Your task to perform on an android device: Open Yahoo.com Image 0: 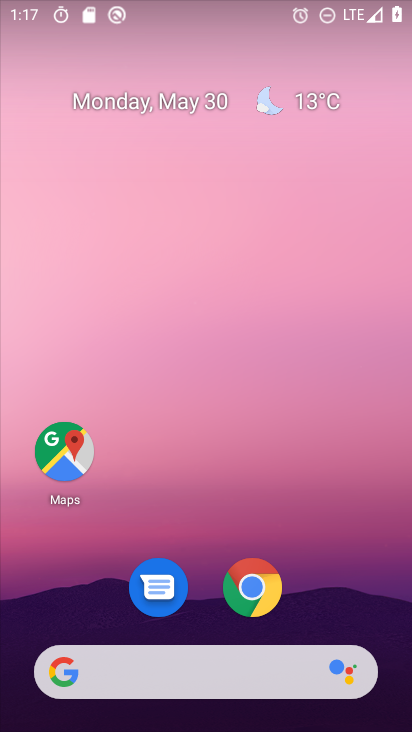
Step 0: click (257, 591)
Your task to perform on an android device: Open Yahoo.com Image 1: 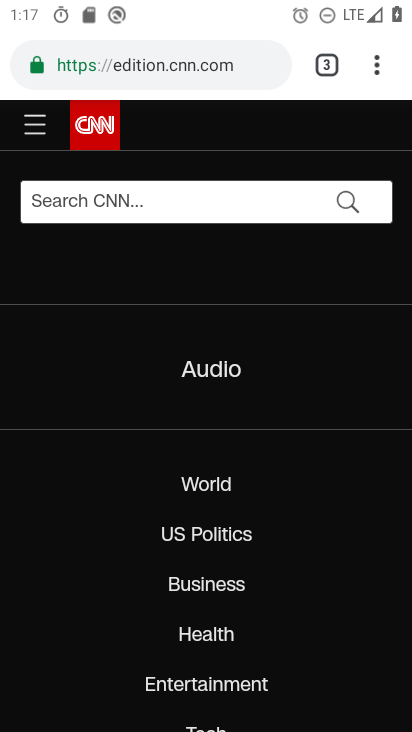
Step 1: click (229, 70)
Your task to perform on an android device: Open Yahoo.com Image 2: 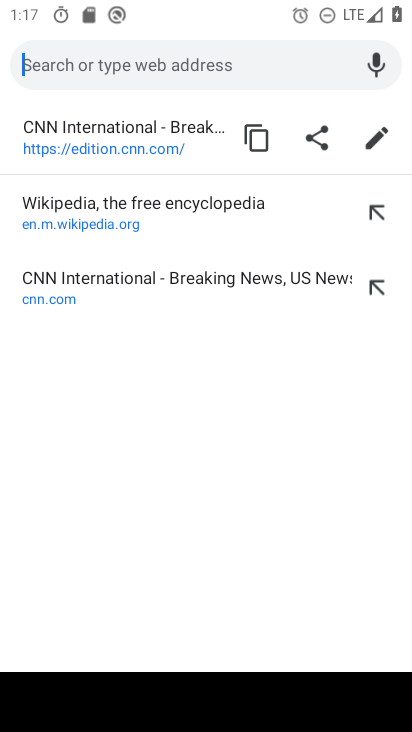
Step 2: type "yahoo.com"
Your task to perform on an android device: Open Yahoo.com Image 3: 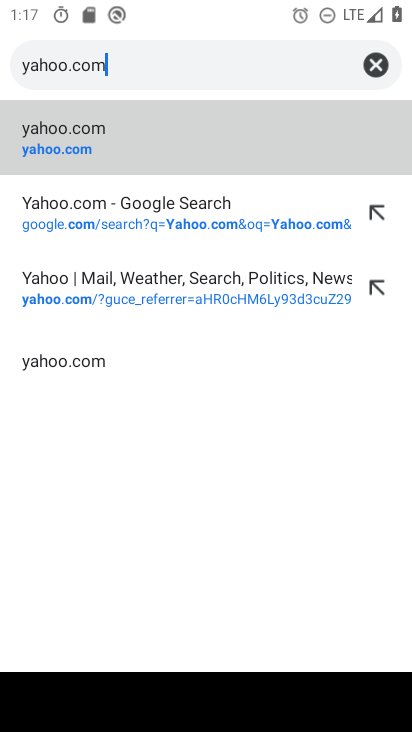
Step 3: click (43, 155)
Your task to perform on an android device: Open Yahoo.com Image 4: 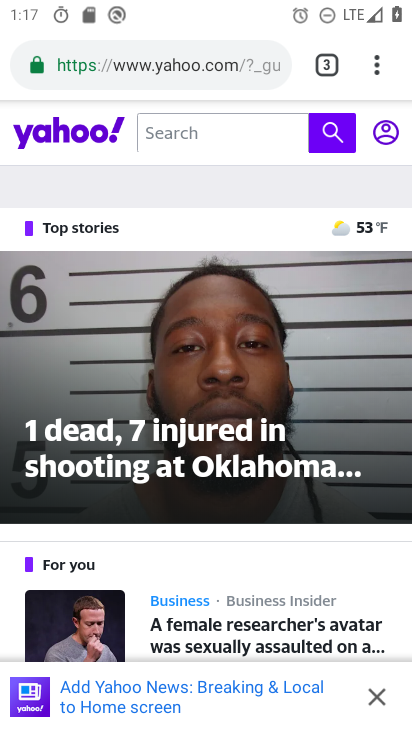
Step 4: task complete